Your task to perform on an android device: Search for "duracell triple a" on amazon, select the first entry, and add it to the cart. Image 0: 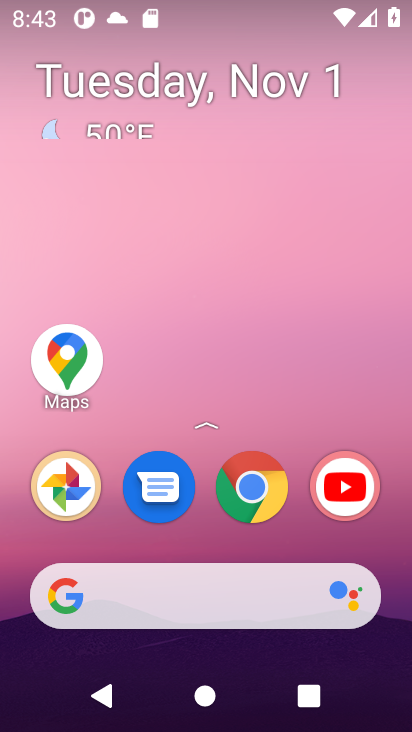
Step 0: drag from (202, 444) to (198, 0)
Your task to perform on an android device: Search for "duracell triple a" on amazon, select the first entry, and add it to the cart. Image 1: 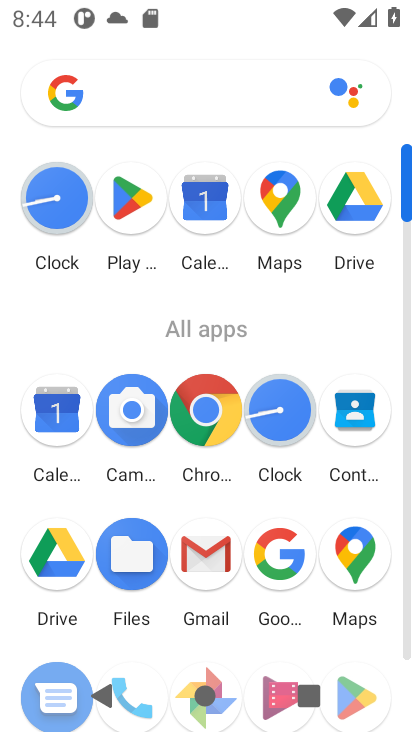
Step 1: click (212, 403)
Your task to perform on an android device: Search for "duracell triple a" on amazon, select the first entry, and add it to the cart. Image 2: 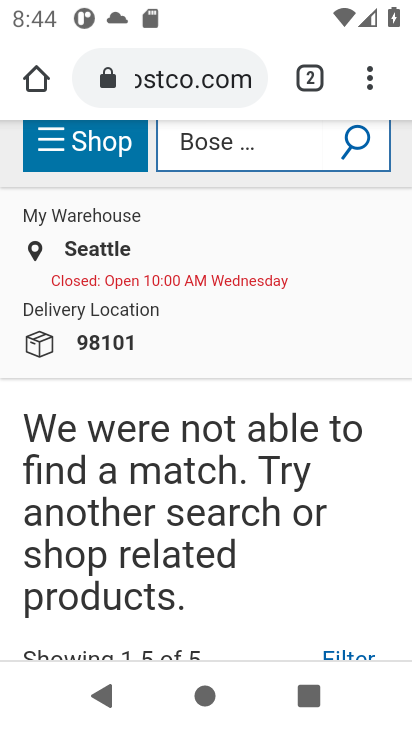
Step 2: click (263, 133)
Your task to perform on an android device: Search for "duracell triple a" on amazon, select the first entry, and add it to the cart. Image 3: 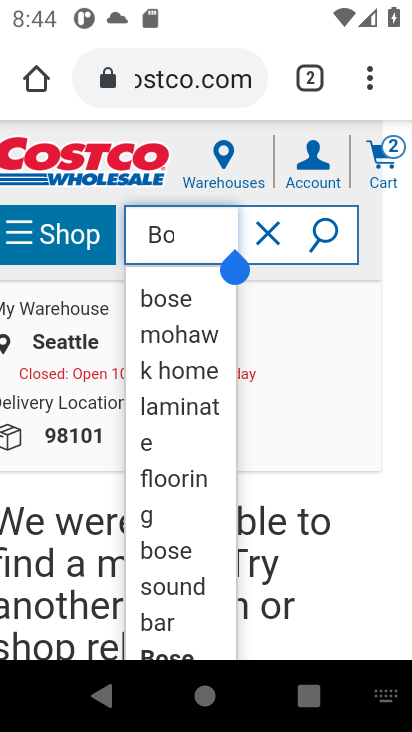
Step 3: click (151, 82)
Your task to perform on an android device: Search for "duracell triple a" on amazon, select the first entry, and add it to the cart. Image 4: 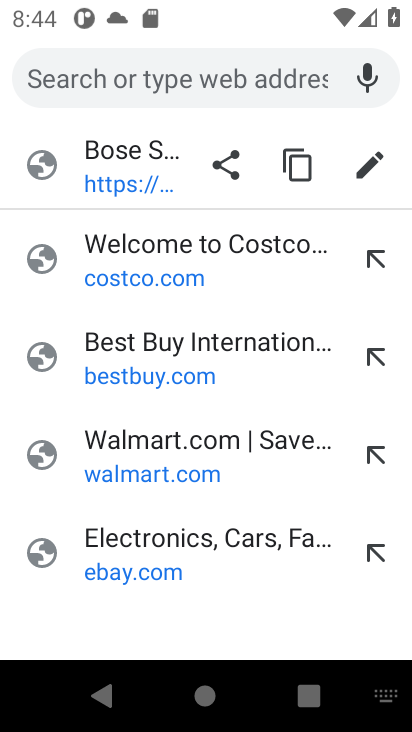
Step 4: type "amazon"
Your task to perform on an android device: Search for "duracell triple a" on amazon, select the first entry, and add it to the cart. Image 5: 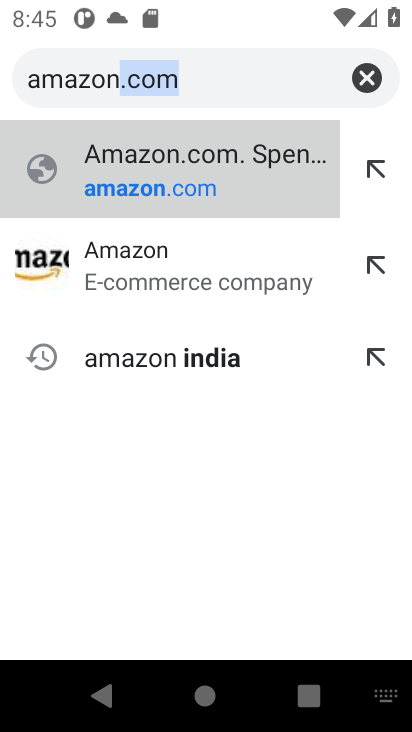
Step 5: click (163, 196)
Your task to perform on an android device: Search for "duracell triple a" on amazon, select the first entry, and add it to the cart. Image 6: 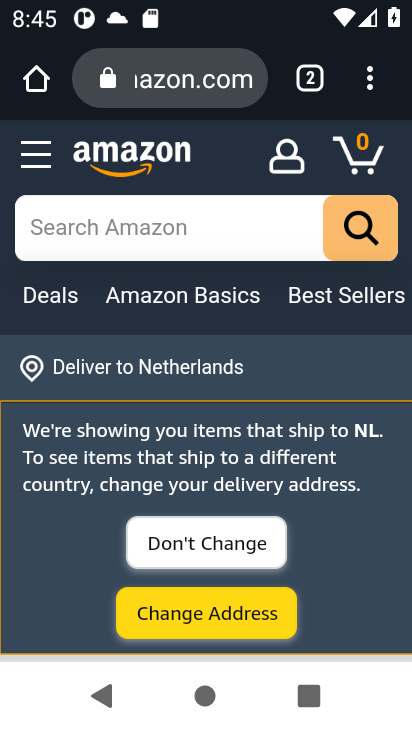
Step 6: click (175, 233)
Your task to perform on an android device: Search for "duracell triple a" on amazon, select the first entry, and add it to the cart. Image 7: 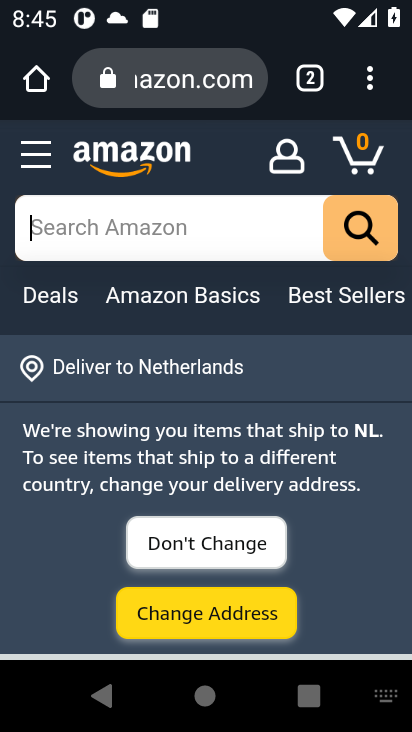
Step 7: type "duracell triple a"
Your task to perform on an android device: Search for "duracell triple a" on amazon, select the first entry, and add it to the cart. Image 8: 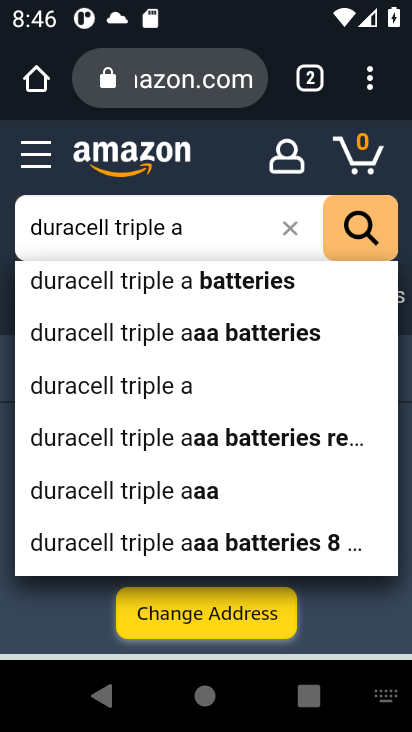
Step 8: click (210, 343)
Your task to perform on an android device: Search for "duracell triple a" on amazon, select the first entry, and add it to the cart. Image 9: 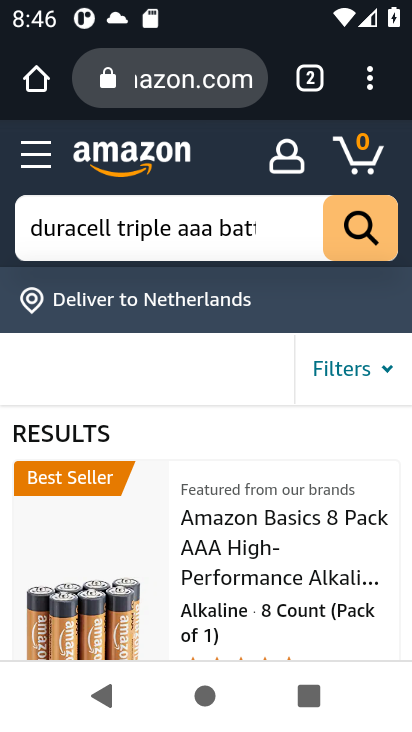
Step 9: click (219, 529)
Your task to perform on an android device: Search for "duracell triple a" on amazon, select the first entry, and add it to the cart. Image 10: 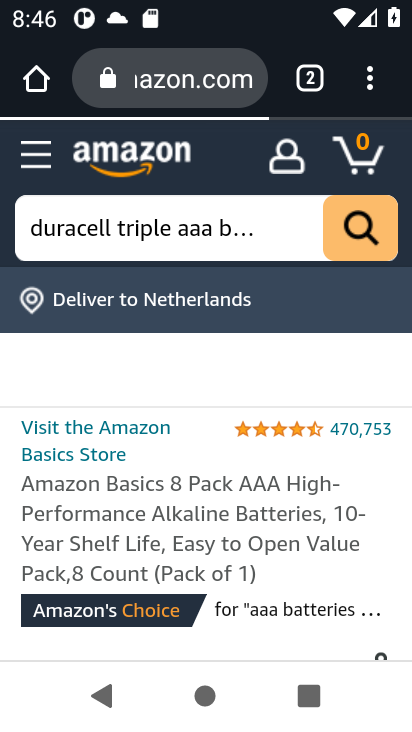
Step 10: drag from (201, 550) to (185, 196)
Your task to perform on an android device: Search for "duracell triple a" on amazon, select the first entry, and add it to the cart. Image 11: 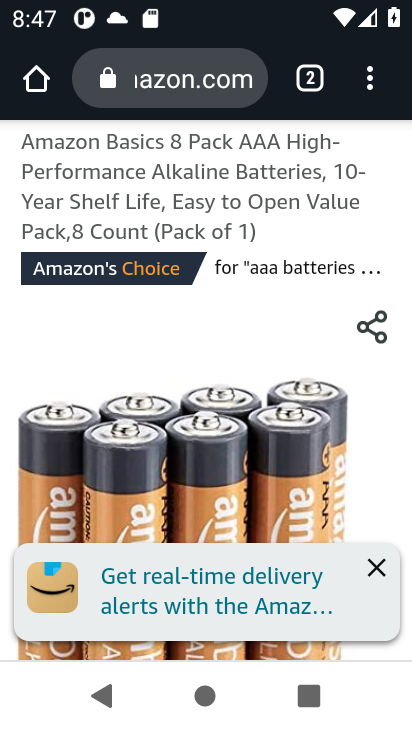
Step 11: click (371, 565)
Your task to perform on an android device: Search for "duracell triple a" on amazon, select the first entry, and add it to the cart. Image 12: 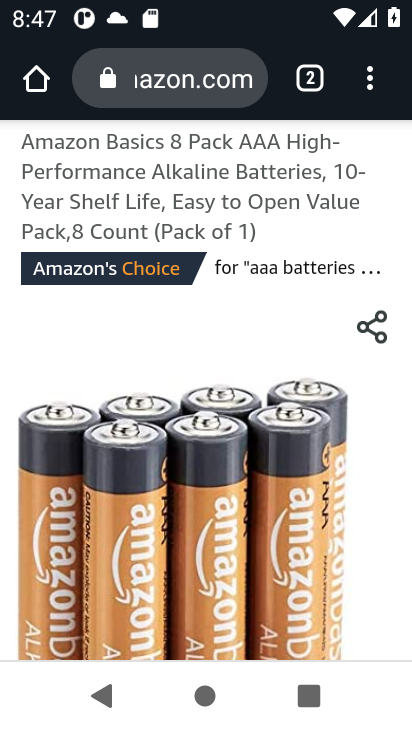
Step 12: drag from (351, 641) to (329, 179)
Your task to perform on an android device: Search for "duracell triple a" on amazon, select the first entry, and add it to the cart. Image 13: 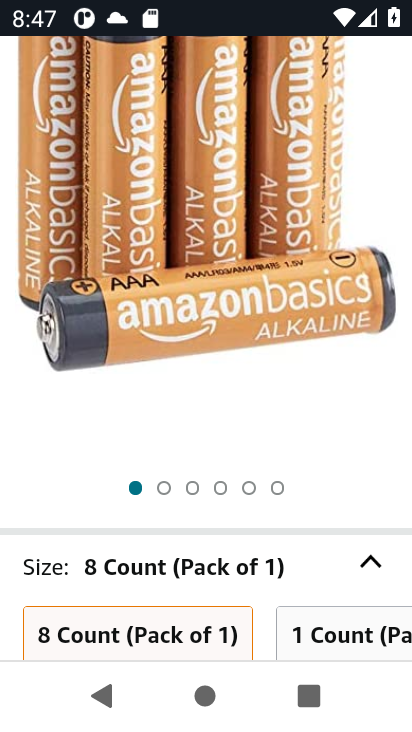
Step 13: drag from (269, 527) to (244, 186)
Your task to perform on an android device: Search for "duracell triple a" on amazon, select the first entry, and add it to the cart. Image 14: 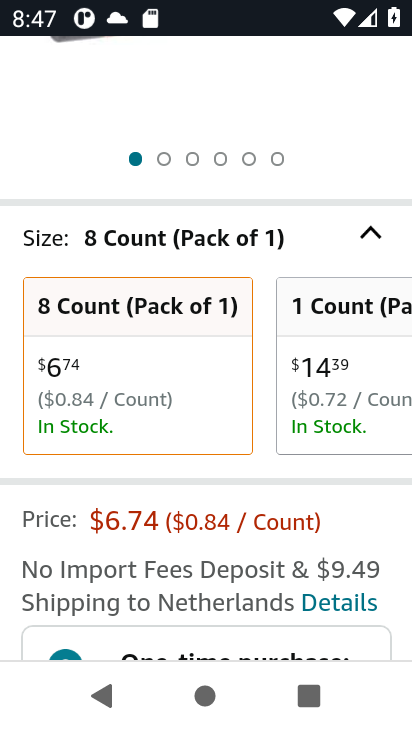
Step 14: drag from (229, 613) to (218, 276)
Your task to perform on an android device: Search for "duracell triple a" on amazon, select the first entry, and add it to the cart. Image 15: 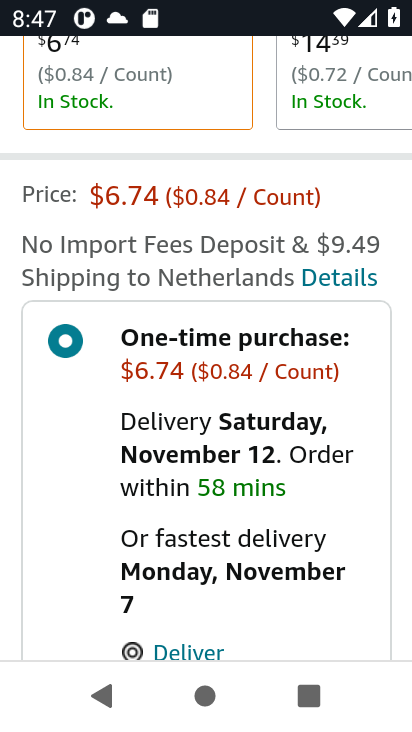
Step 15: drag from (171, 630) to (177, 258)
Your task to perform on an android device: Search for "duracell triple a" on amazon, select the first entry, and add it to the cart. Image 16: 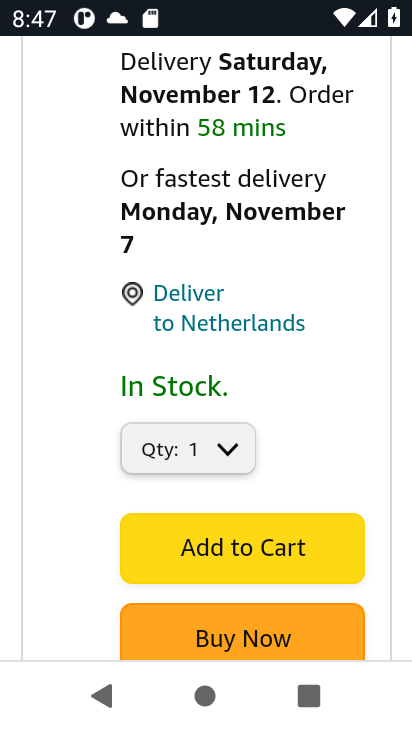
Step 16: click (243, 542)
Your task to perform on an android device: Search for "duracell triple a" on amazon, select the first entry, and add it to the cart. Image 17: 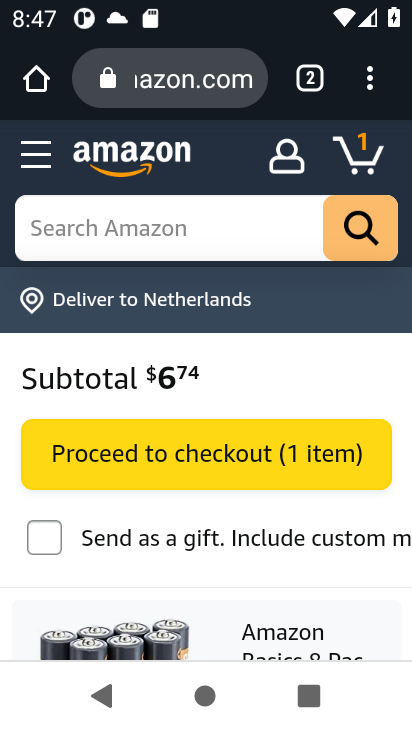
Step 17: task complete